Your task to perform on an android device: Open Chrome and go to the settings page Image 0: 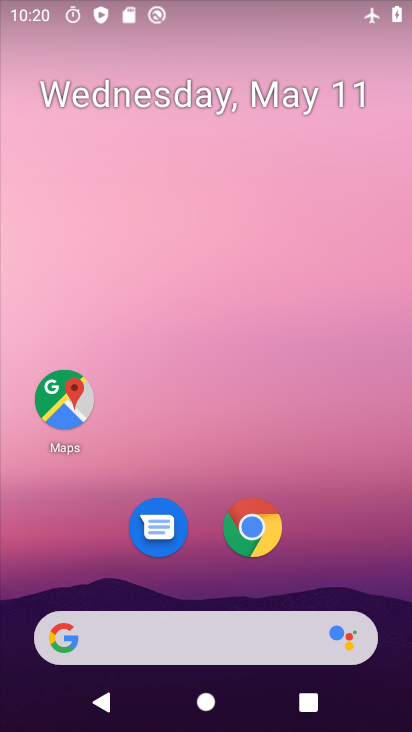
Step 0: drag from (297, 521) to (301, 233)
Your task to perform on an android device: Open Chrome and go to the settings page Image 1: 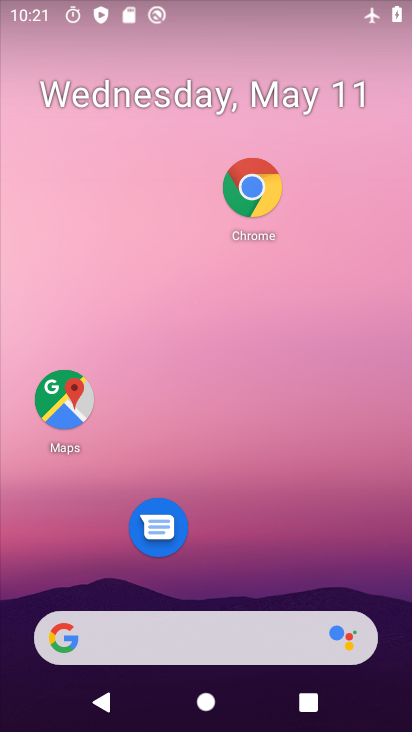
Step 1: drag from (259, 558) to (337, 156)
Your task to perform on an android device: Open Chrome and go to the settings page Image 2: 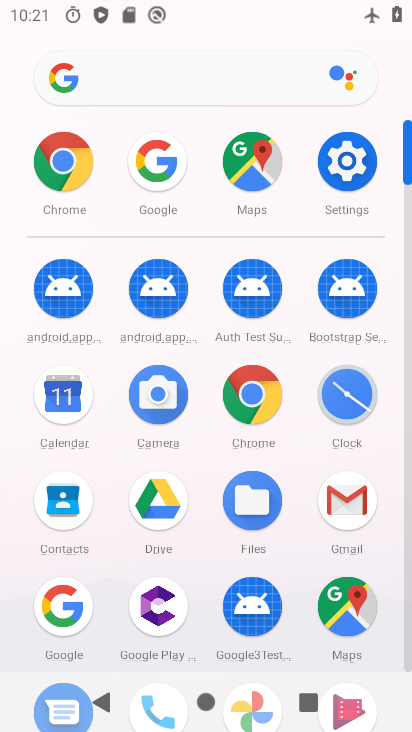
Step 2: click (69, 197)
Your task to perform on an android device: Open Chrome and go to the settings page Image 3: 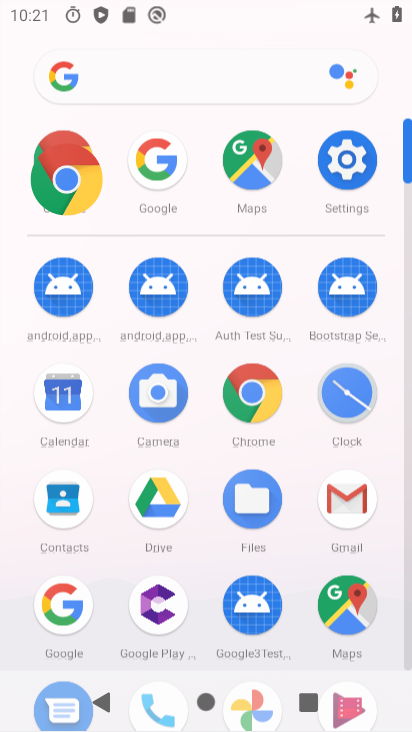
Step 3: click (69, 197)
Your task to perform on an android device: Open Chrome and go to the settings page Image 4: 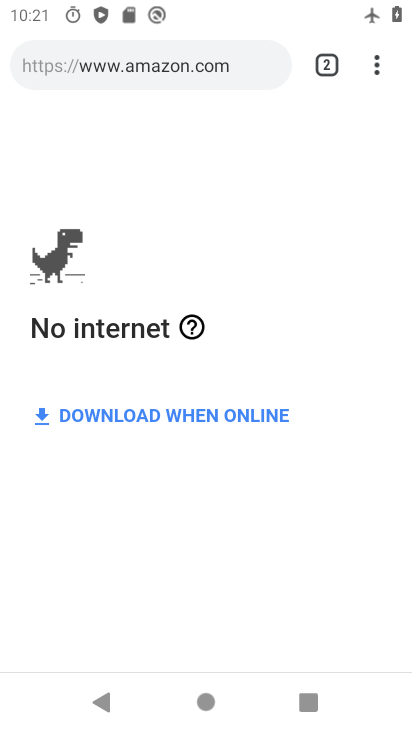
Step 4: click (370, 73)
Your task to perform on an android device: Open Chrome and go to the settings page Image 5: 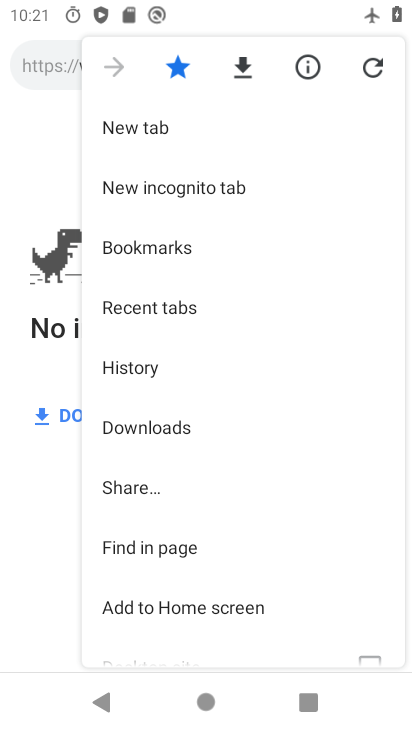
Step 5: drag from (266, 433) to (348, 20)
Your task to perform on an android device: Open Chrome and go to the settings page Image 6: 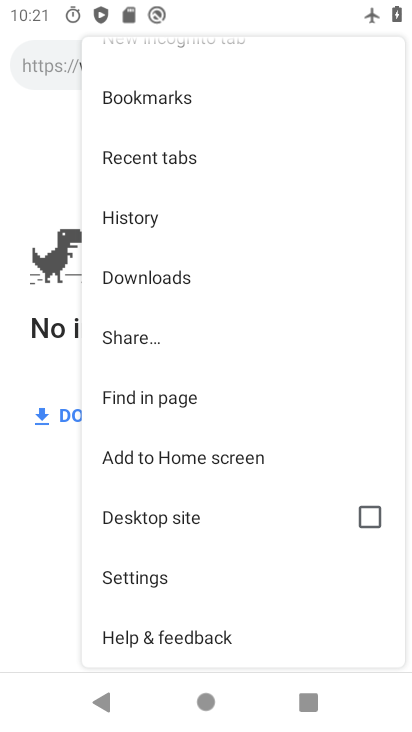
Step 6: click (200, 576)
Your task to perform on an android device: Open Chrome and go to the settings page Image 7: 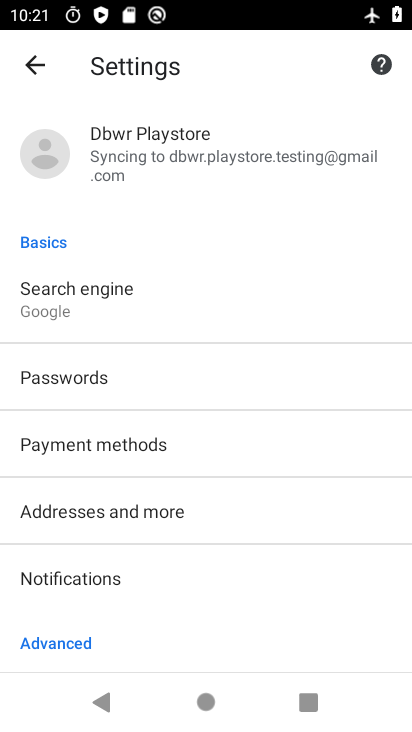
Step 7: task complete